Your task to perform on an android device: open chrome and create a bookmark for the current page Image 0: 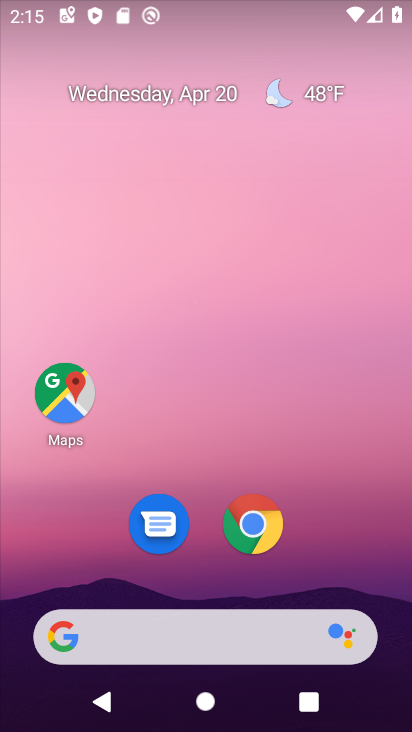
Step 0: click (258, 524)
Your task to perform on an android device: open chrome and create a bookmark for the current page Image 1: 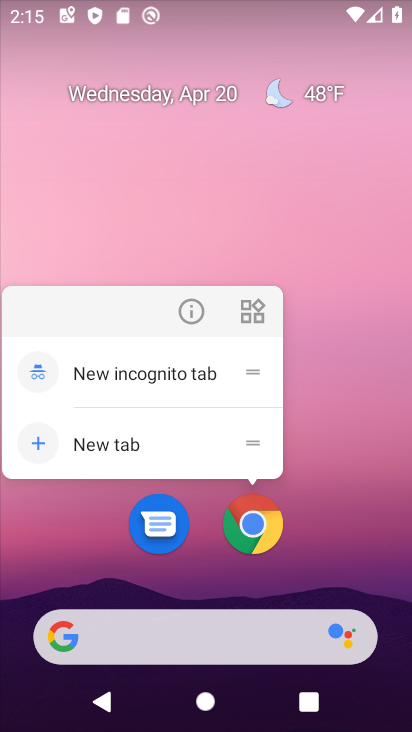
Step 1: click (258, 525)
Your task to perform on an android device: open chrome and create a bookmark for the current page Image 2: 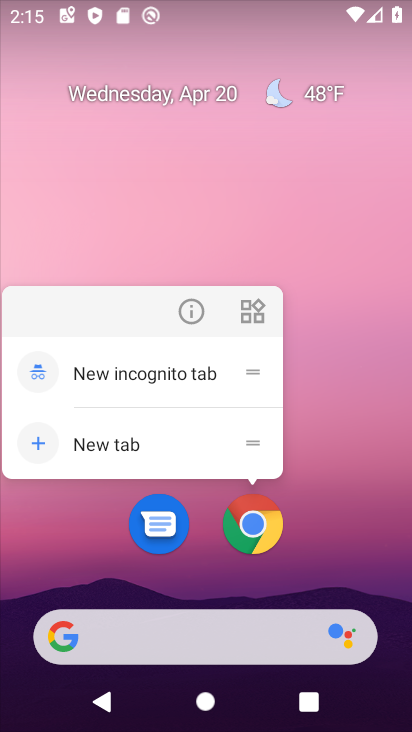
Step 2: click (258, 527)
Your task to perform on an android device: open chrome and create a bookmark for the current page Image 3: 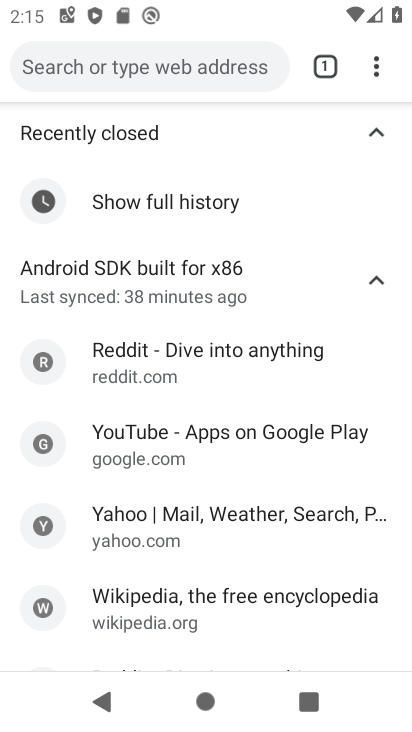
Step 3: click (371, 51)
Your task to perform on an android device: open chrome and create a bookmark for the current page Image 4: 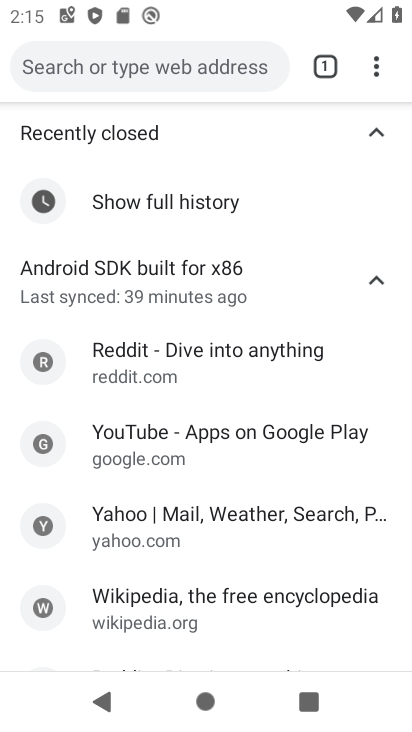
Step 4: click (376, 60)
Your task to perform on an android device: open chrome and create a bookmark for the current page Image 5: 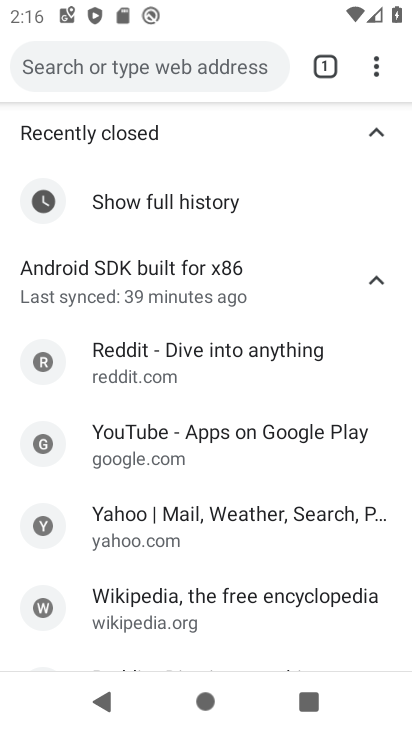
Step 5: click (328, 65)
Your task to perform on an android device: open chrome and create a bookmark for the current page Image 6: 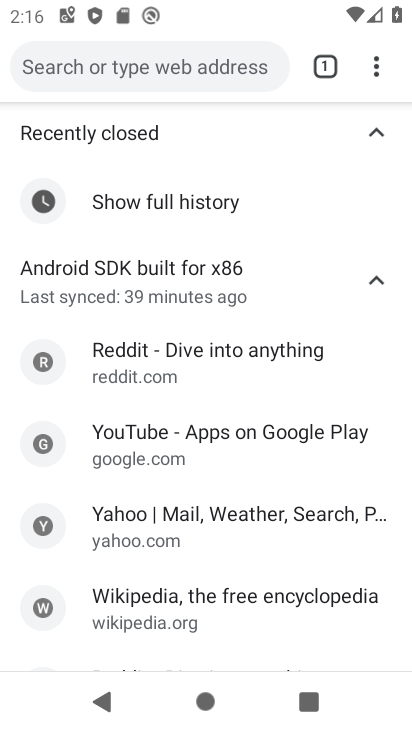
Step 6: click (328, 67)
Your task to perform on an android device: open chrome and create a bookmark for the current page Image 7: 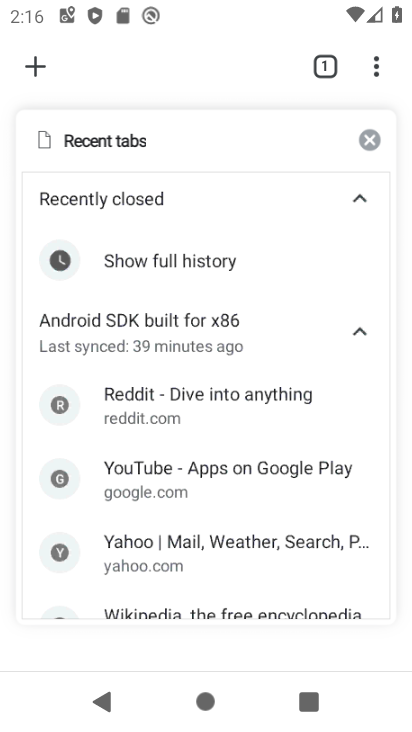
Step 7: click (324, 58)
Your task to perform on an android device: open chrome and create a bookmark for the current page Image 8: 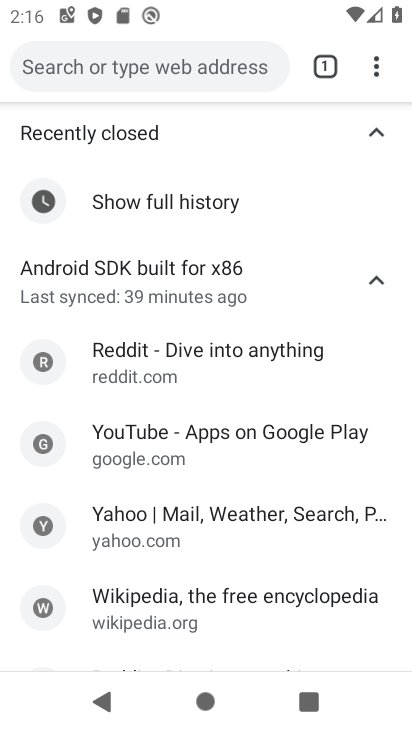
Step 8: press back button
Your task to perform on an android device: open chrome and create a bookmark for the current page Image 9: 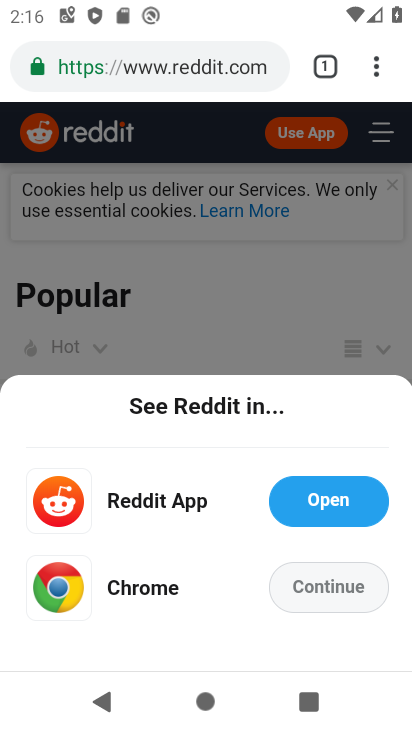
Step 9: click (375, 61)
Your task to perform on an android device: open chrome and create a bookmark for the current page Image 10: 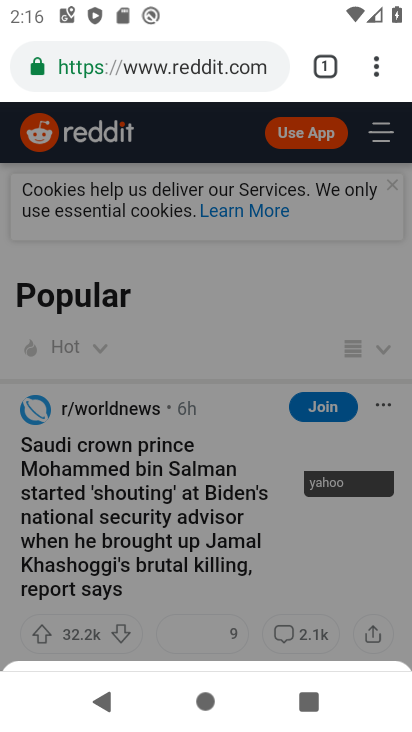
Step 10: task complete